Your task to perform on an android device: open chrome privacy settings Image 0: 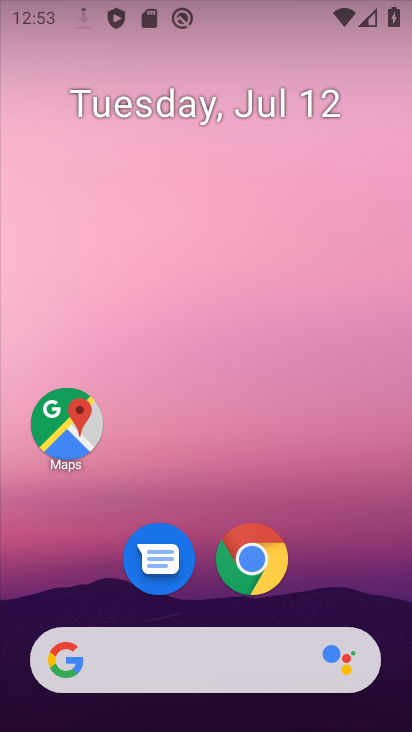
Step 0: drag from (373, 590) to (313, 98)
Your task to perform on an android device: open chrome privacy settings Image 1: 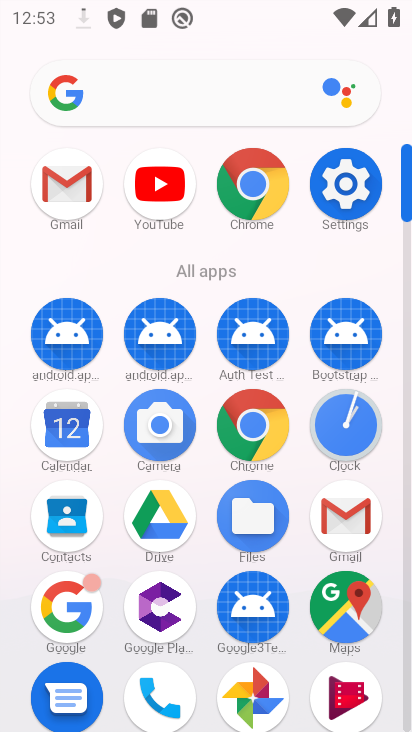
Step 1: click (350, 199)
Your task to perform on an android device: open chrome privacy settings Image 2: 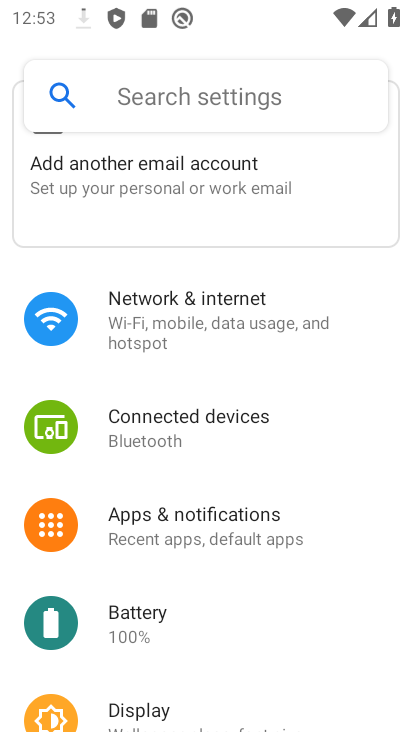
Step 2: drag from (352, 477) to (342, 348)
Your task to perform on an android device: open chrome privacy settings Image 3: 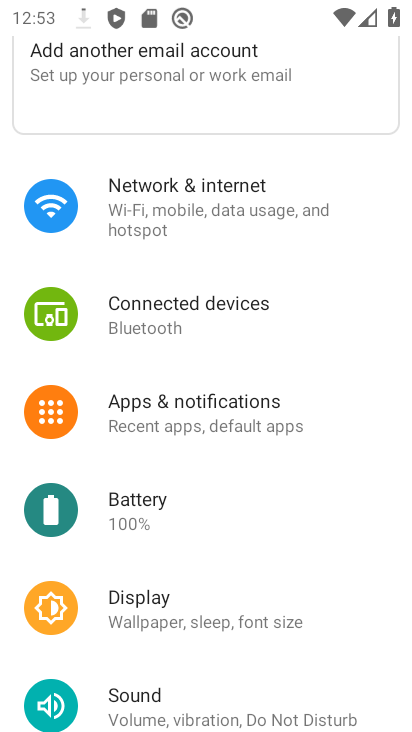
Step 3: drag from (327, 526) to (340, 391)
Your task to perform on an android device: open chrome privacy settings Image 4: 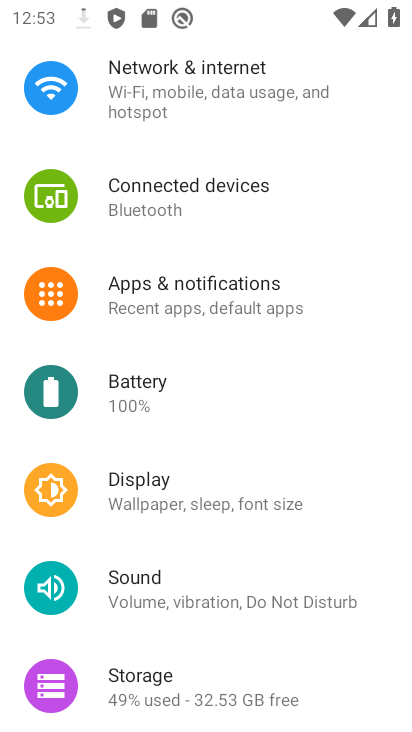
Step 4: drag from (340, 553) to (348, 431)
Your task to perform on an android device: open chrome privacy settings Image 5: 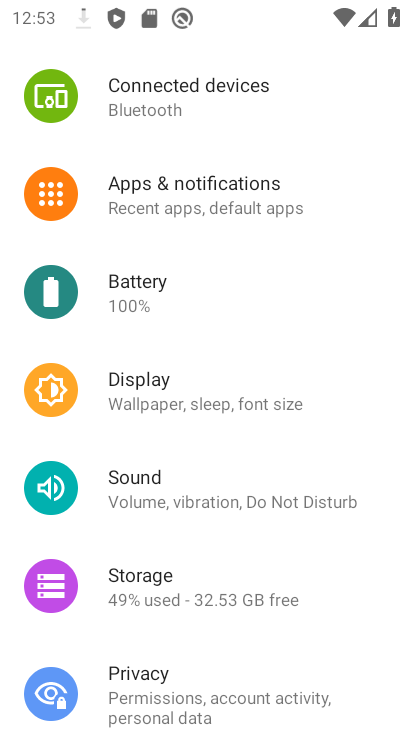
Step 5: drag from (347, 576) to (347, 405)
Your task to perform on an android device: open chrome privacy settings Image 6: 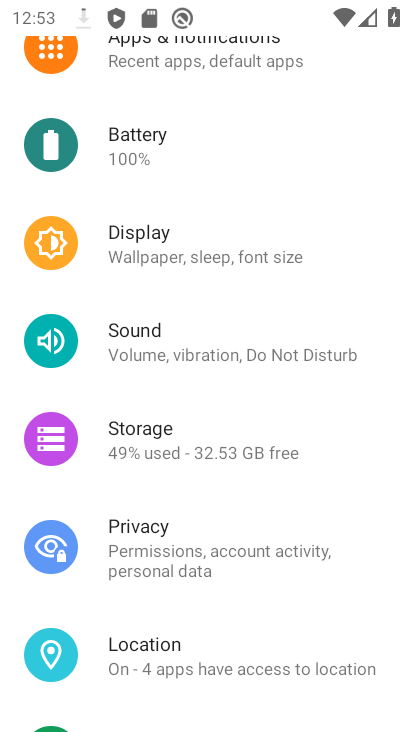
Step 6: drag from (357, 605) to (357, 467)
Your task to perform on an android device: open chrome privacy settings Image 7: 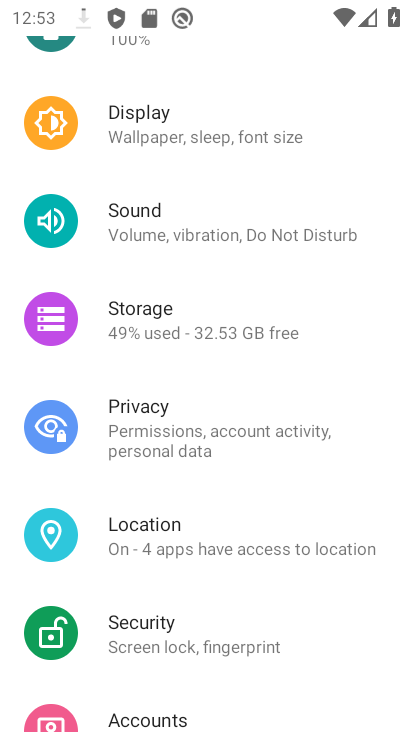
Step 7: drag from (350, 620) to (348, 494)
Your task to perform on an android device: open chrome privacy settings Image 8: 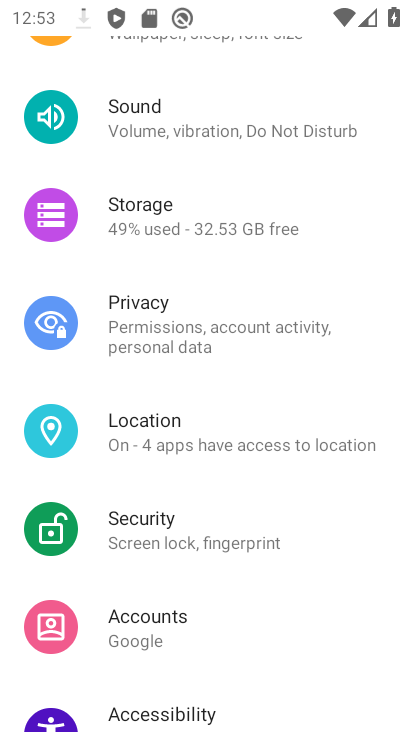
Step 8: drag from (352, 622) to (338, 471)
Your task to perform on an android device: open chrome privacy settings Image 9: 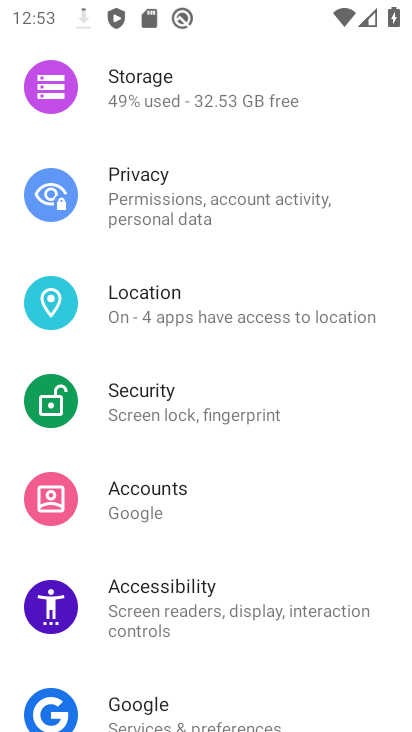
Step 9: drag from (333, 647) to (328, 470)
Your task to perform on an android device: open chrome privacy settings Image 10: 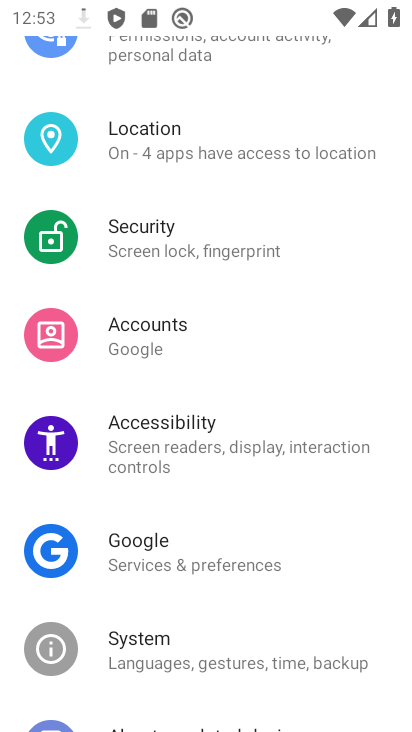
Step 10: drag from (330, 373) to (331, 501)
Your task to perform on an android device: open chrome privacy settings Image 11: 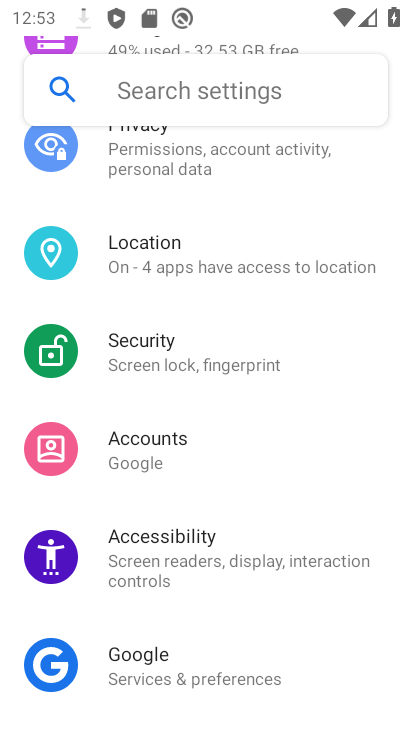
Step 11: drag from (313, 323) to (313, 506)
Your task to perform on an android device: open chrome privacy settings Image 12: 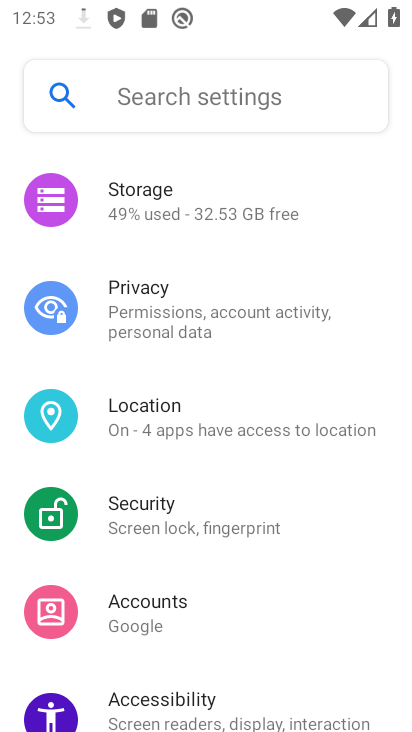
Step 12: drag from (351, 294) to (355, 427)
Your task to perform on an android device: open chrome privacy settings Image 13: 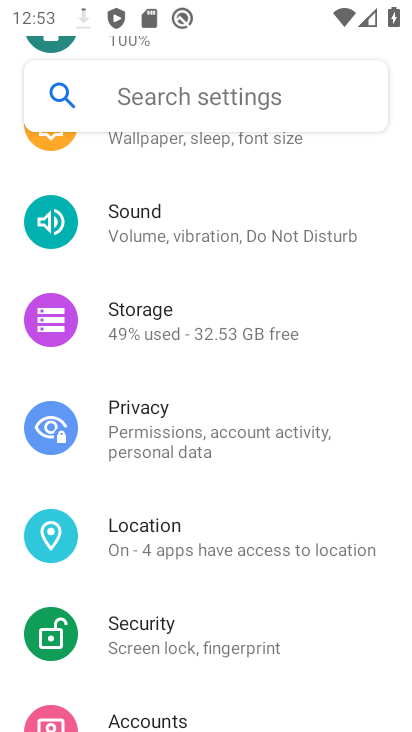
Step 13: click (219, 438)
Your task to perform on an android device: open chrome privacy settings Image 14: 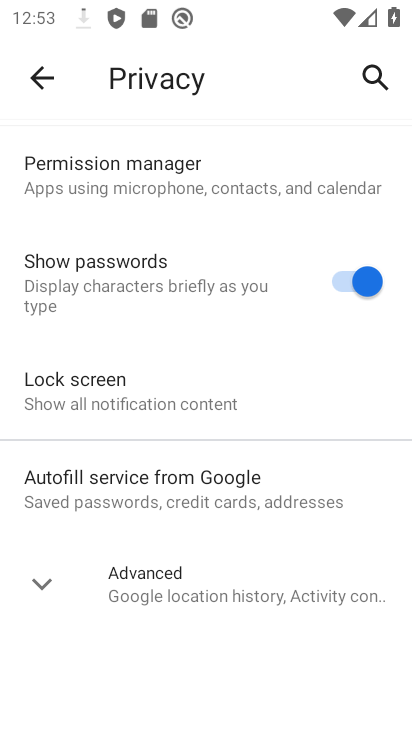
Step 14: click (175, 586)
Your task to perform on an android device: open chrome privacy settings Image 15: 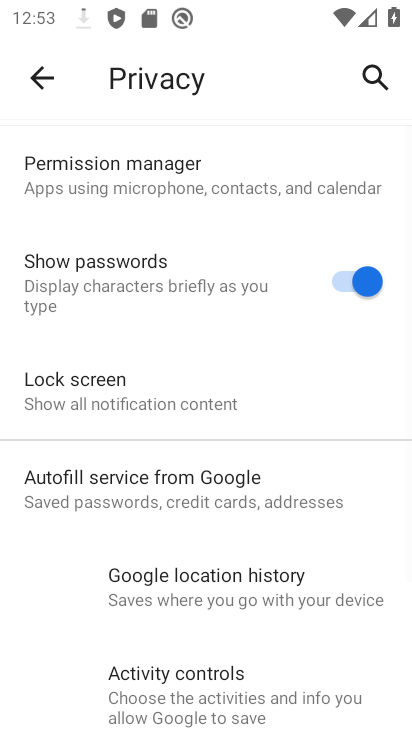
Step 15: task complete